Your task to perform on an android device: Do I have any events today? Image 0: 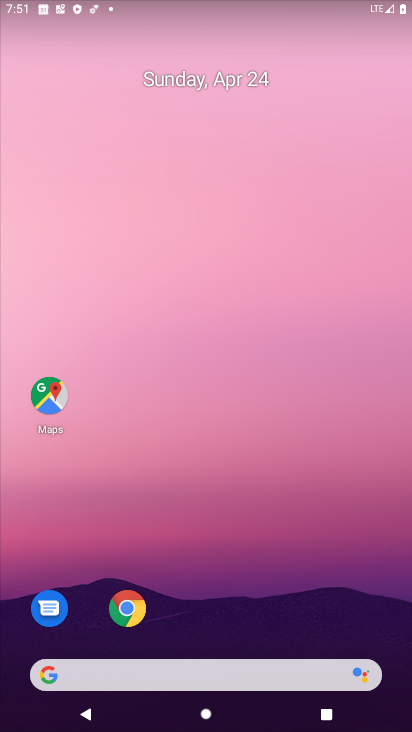
Step 0: drag from (289, 561) to (210, 6)
Your task to perform on an android device: Do I have any events today? Image 1: 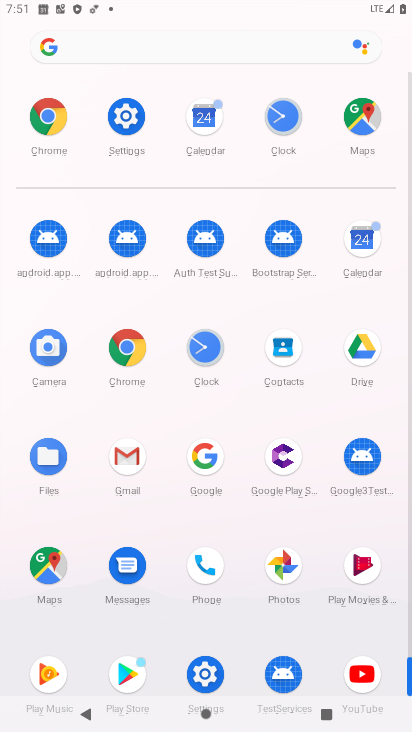
Step 1: click (366, 232)
Your task to perform on an android device: Do I have any events today? Image 2: 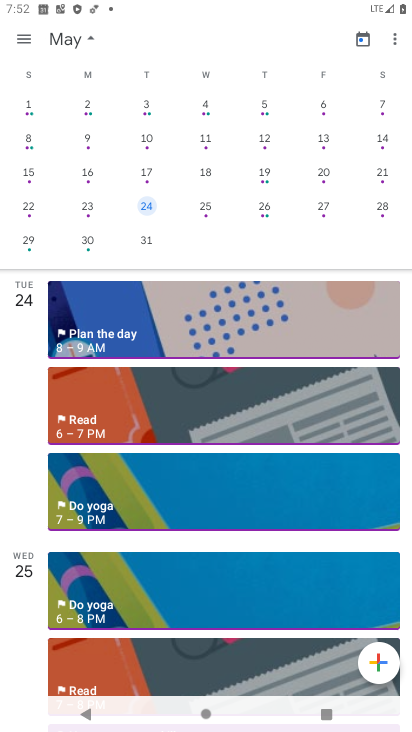
Step 2: drag from (41, 151) to (391, 193)
Your task to perform on an android device: Do I have any events today? Image 3: 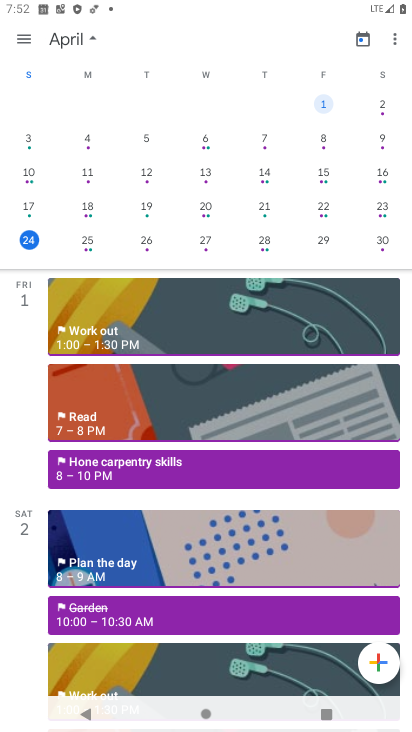
Step 3: click (25, 241)
Your task to perform on an android device: Do I have any events today? Image 4: 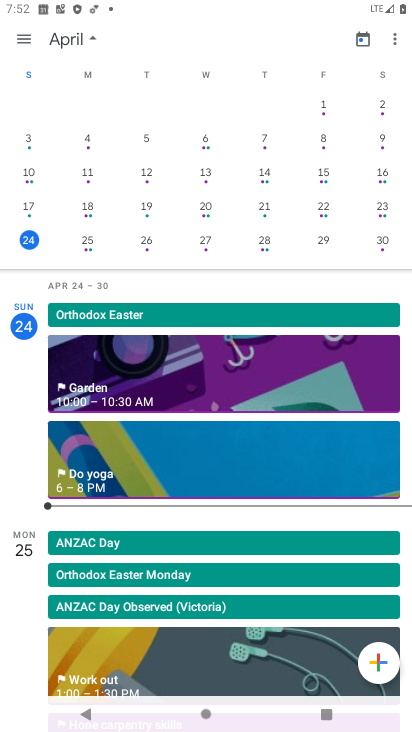
Step 4: task complete